Your task to perform on an android device: Do I have any events today? Image 0: 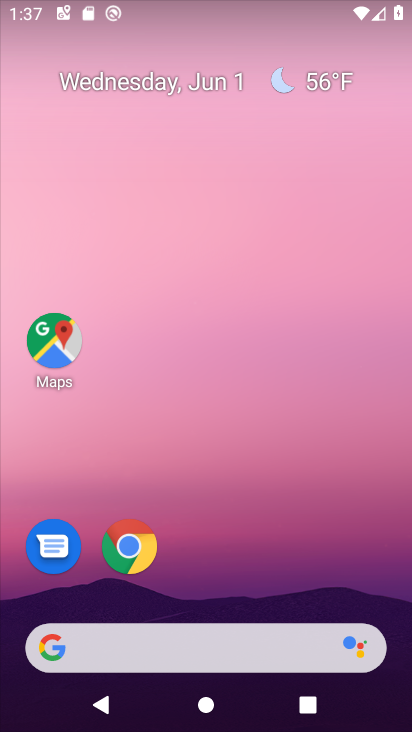
Step 0: drag from (156, 722) to (222, 29)
Your task to perform on an android device: Do I have any events today? Image 1: 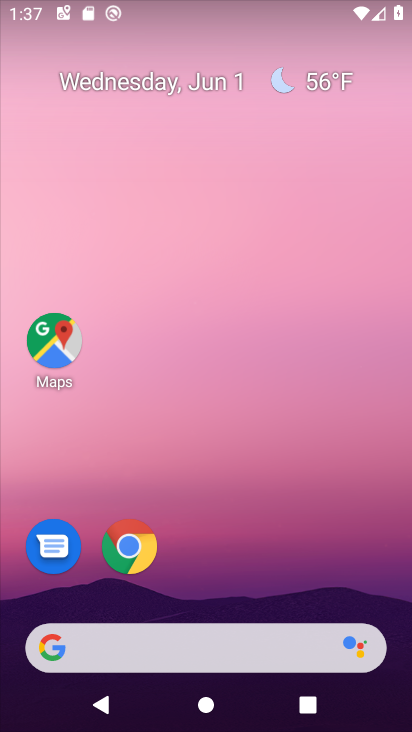
Step 1: drag from (163, 729) to (96, 12)
Your task to perform on an android device: Do I have any events today? Image 2: 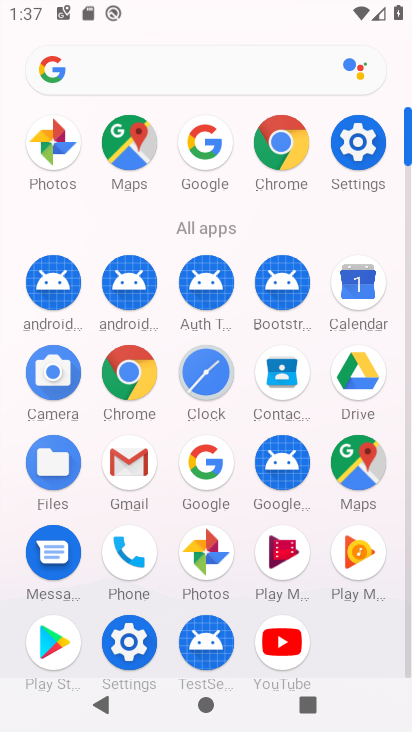
Step 2: click (383, 282)
Your task to perform on an android device: Do I have any events today? Image 3: 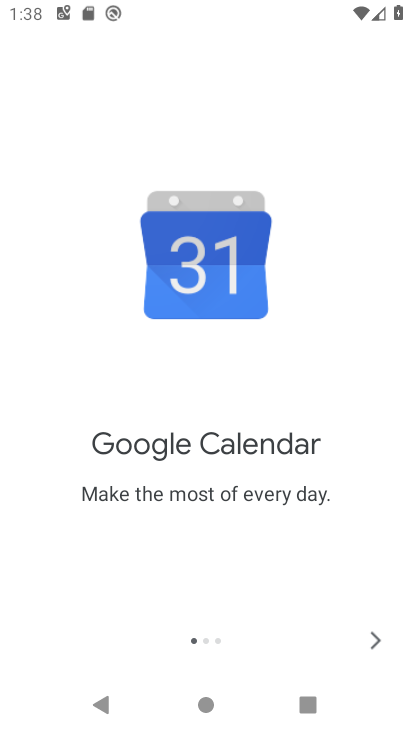
Step 3: click (370, 646)
Your task to perform on an android device: Do I have any events today? Image 4: 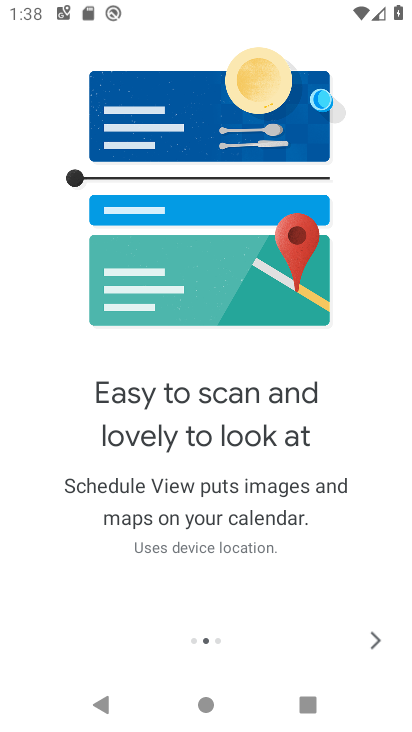
Step 4: click (369, 645)
Your task to perform on an android device: Do I have any events today? Image 5: 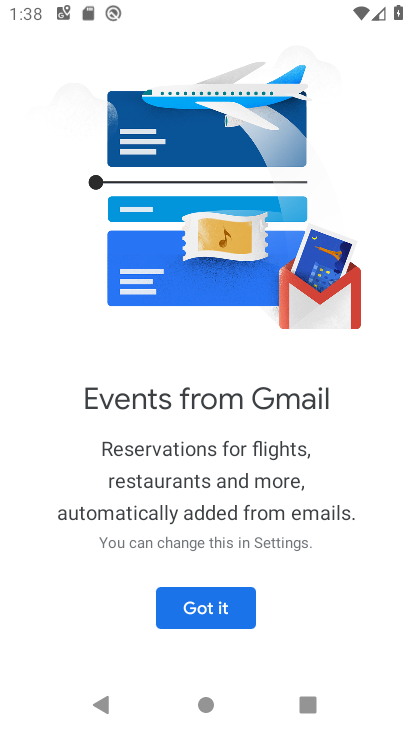
Step 5: click (215, 608)
Your task to perform on an android device: Do I have any events today? Image 6: 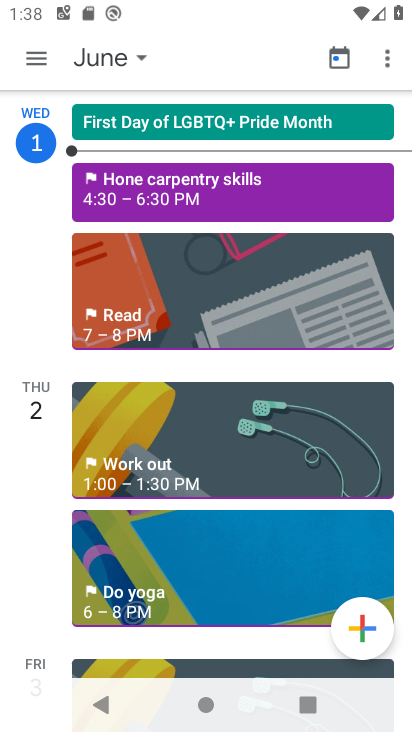
Step 6: click (158, 213)
Your task to perform on an android device: Do I have any events today? Image 7: 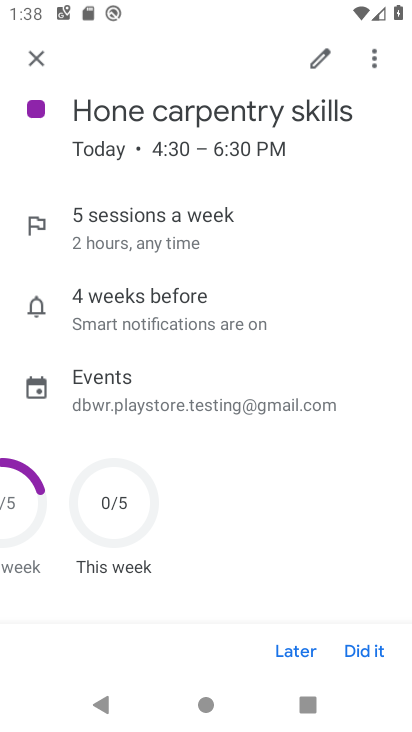
Step 7: task complete